Your task to perform on an android device: Open notification settings Image 0: 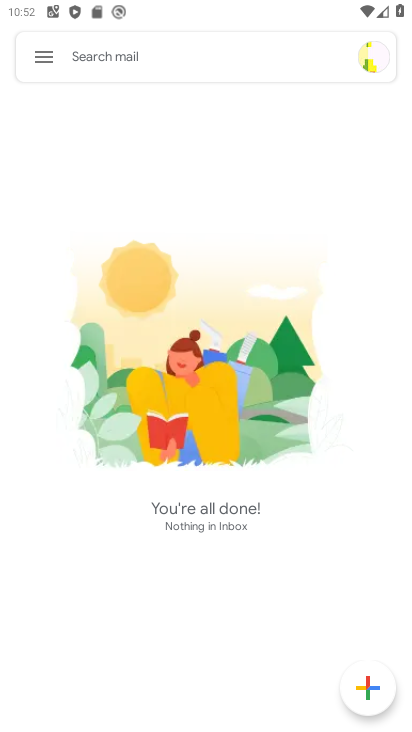
Step 0: press home button
Your task to perform on an android device: Open notification settings Image 1: 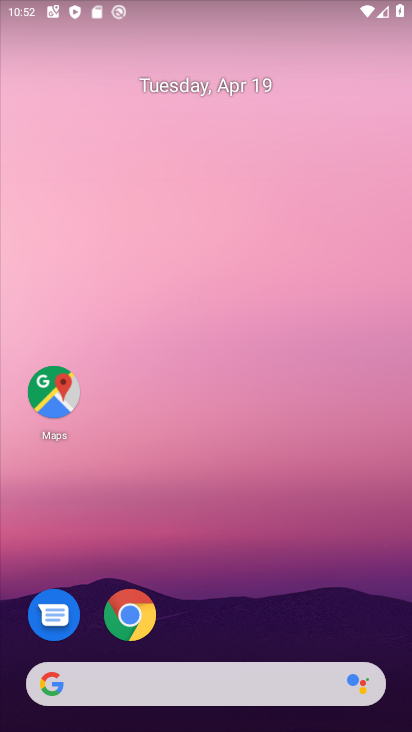
Step 1: drag from (226, 582) to (206, 163)
Your task to perform on an android device: Open notification settings Image 2: 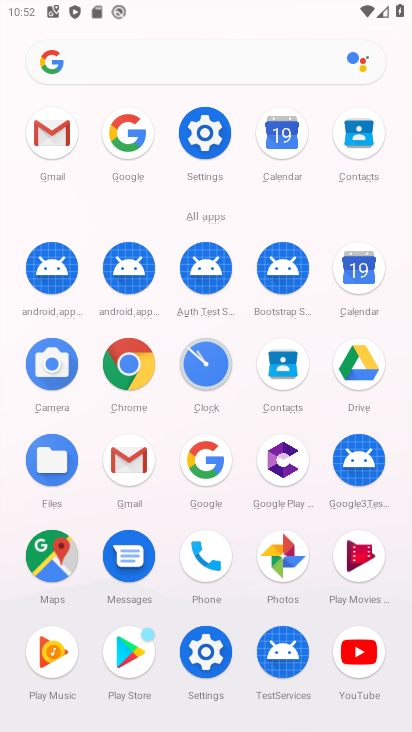
Step 2: click (204, 134)
Your task to perform on an android device: Open notification settings Image 3: 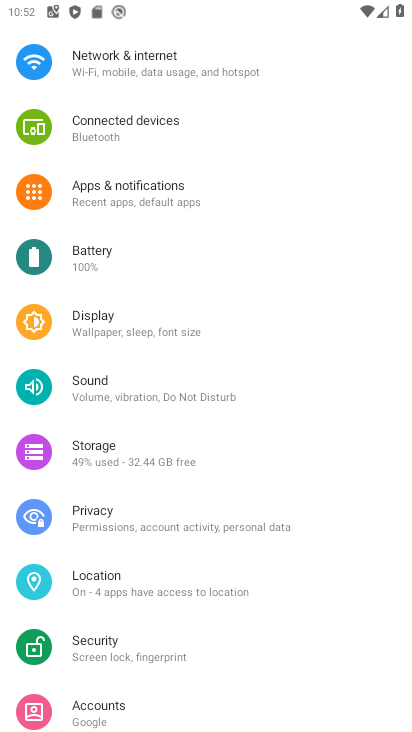
Step 3: drag from (237, 504) to (222, 578)
Your task to perform on an android device: Open notification settings Image 4: 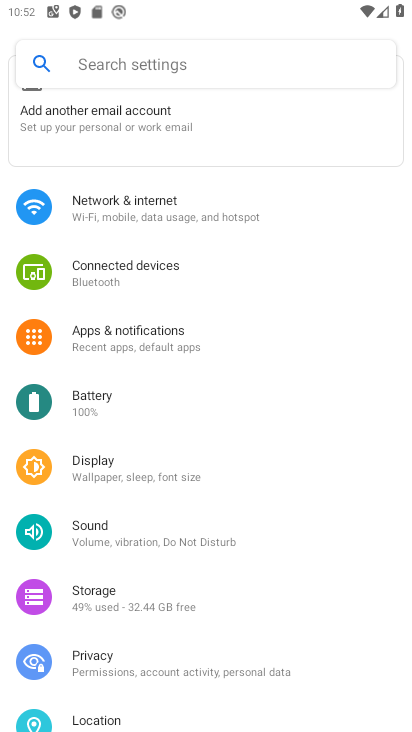
Step 4: click (121, 333)
Your task to perform on an android device: Open notification settings Image 5: 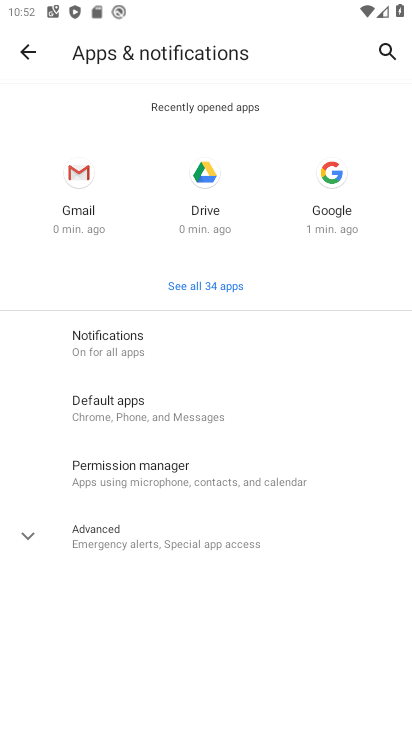
Step 5: click (133, 343)
Your task to perform on an android device: Open notification settings Image 6: 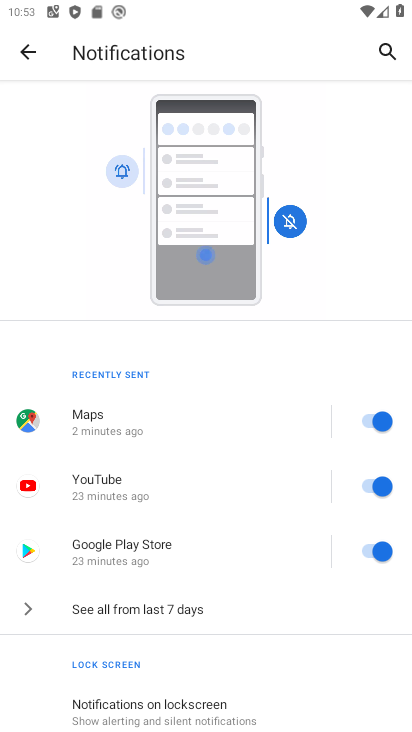
Step 6: task complete